Your task to perform on an android device: Go to calendar. Show me events next week Image 0: 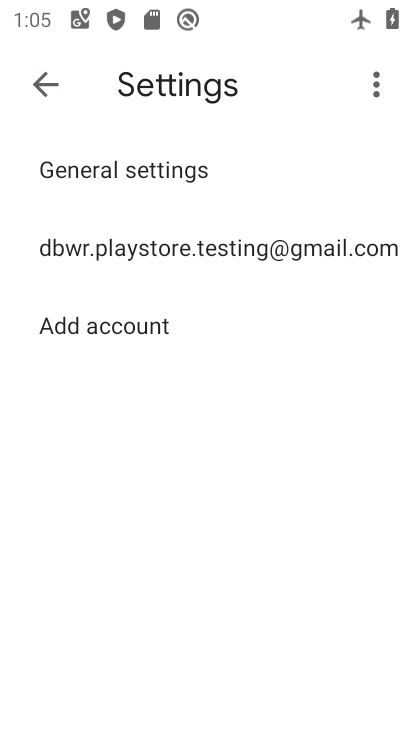
Step 0: press home button
Your task to perform on an android device: Go to calendar. Show me events next week Image 1: 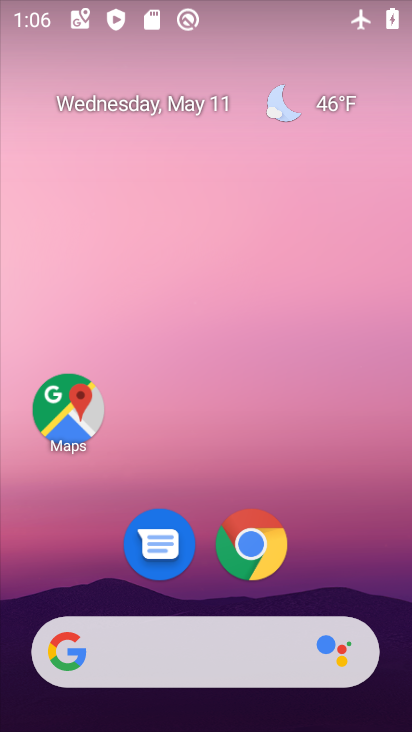
Step 1: drag from (381, 641) to (310, 3)
Your task to perform on an android device: Go to calendar. Show me events next week Image 2: 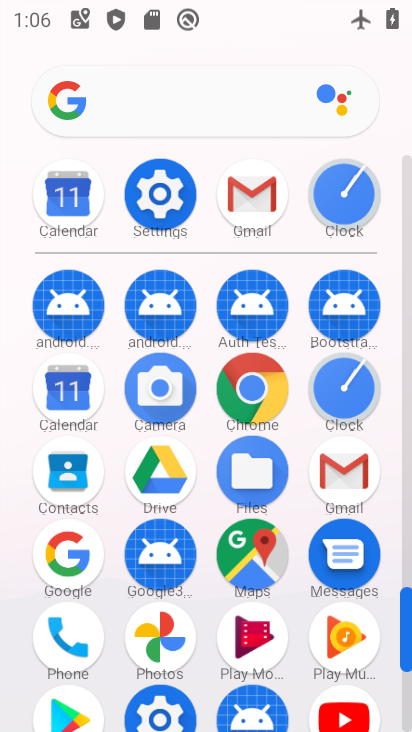
Step 2: click (67, 391)
Your task to perform on an android device: Go to calendar. Show me events next week Image 3: 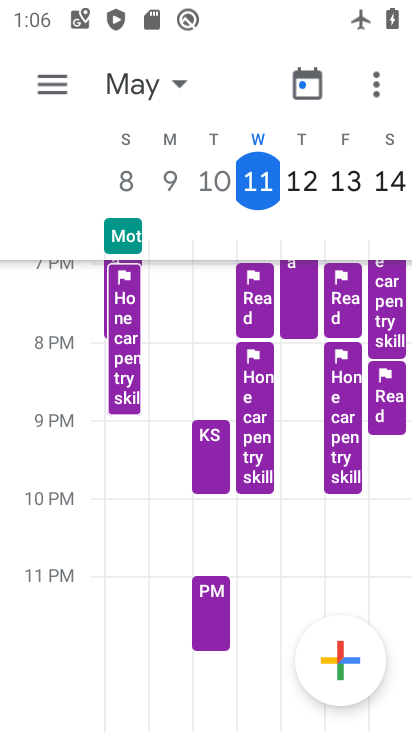
Step 3: click (175, 86)
Your task to perform on an android device: Go to calendar. Show me events next week Image 4: 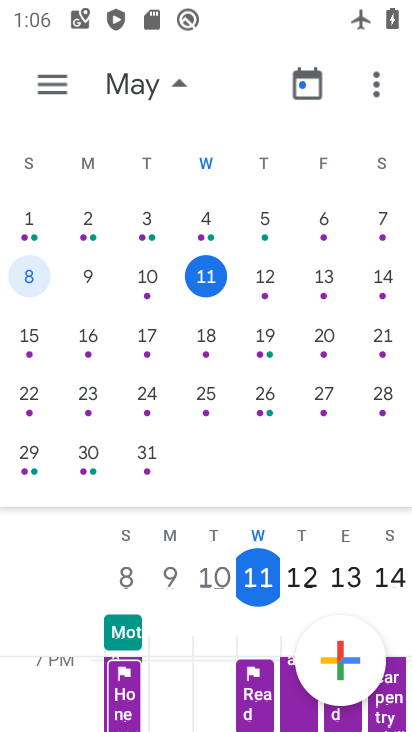
Step 4: click (28, 341)
Your task to perform on an android device: Go to calendar. Show me events next week Image 5: 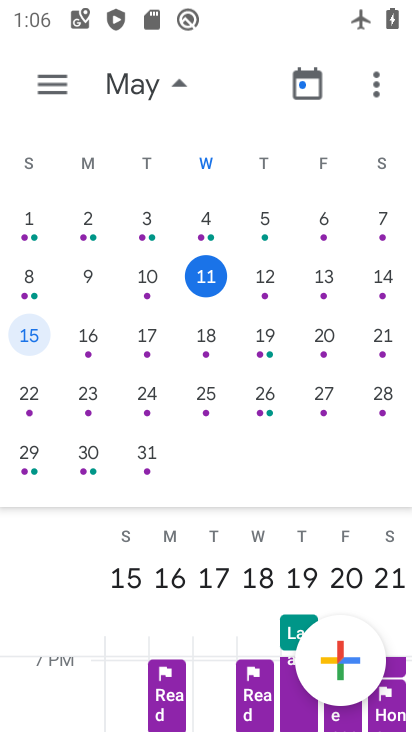
Step 5: task complete